Your task to perform on an android device: show emergency info Image 0: 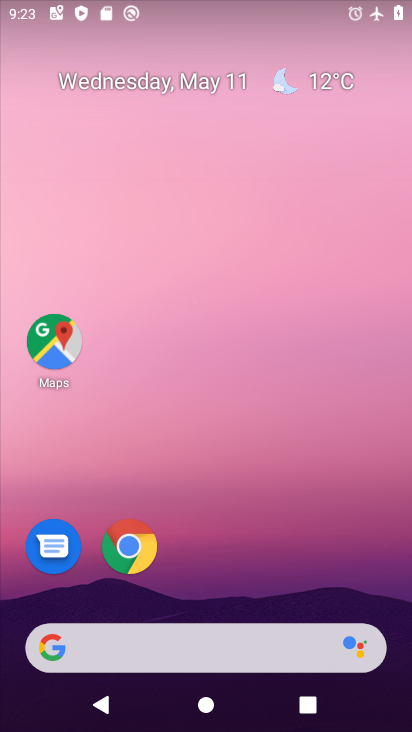
Step 0: drag from (401, 631) to (309, 95)
Your task to perform on an android device: show emergency info Image 1: 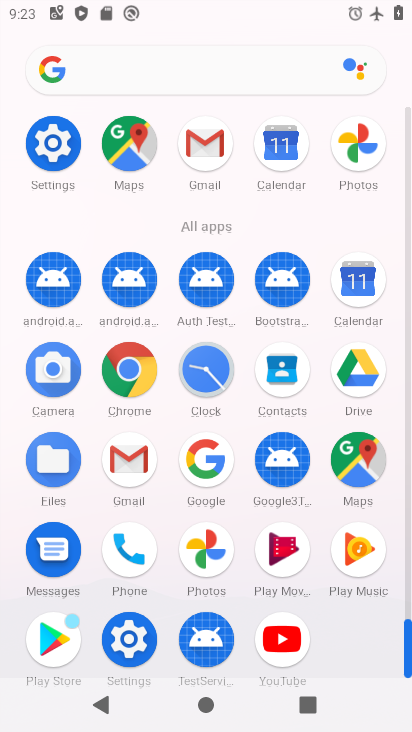
Step 1: click (128, 637)
Your task to perform on an android device: show emergency info Image 2: 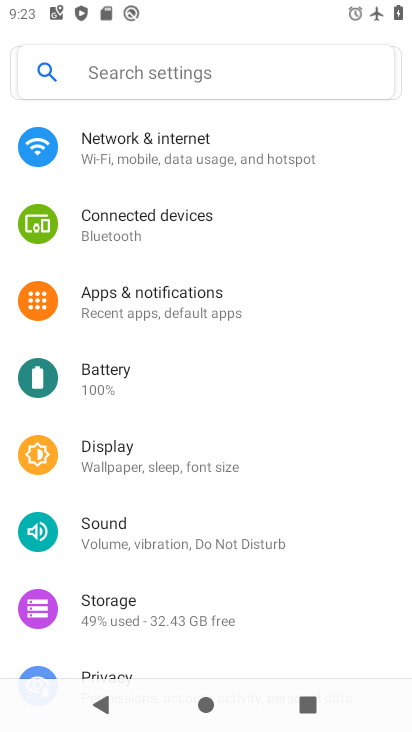
Step 2: drag from (353, 648) to (326, 263)
Your task to perform on an android device: show emergency info Image 3: 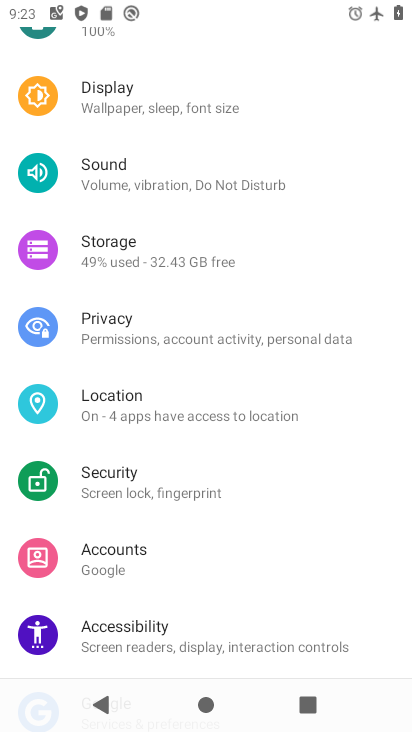
Step 3: drag from (316, 588) to (378, 224)
Your task to perform on an android device: show emergency info Image 4: 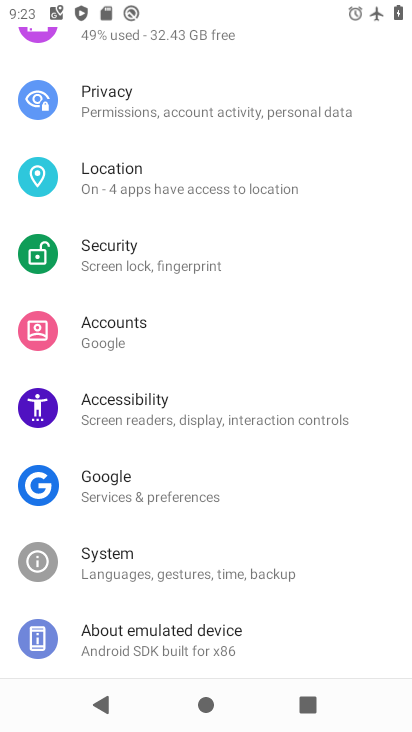
Step 4: click (104, 637)
Your task to perform on an android device: show emergency info Image 5: 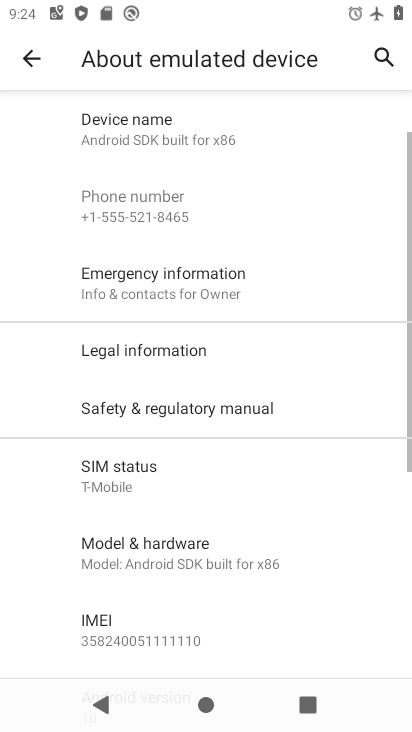
Step 5: click (109, 276)
Your task to perform on an android device: show emergency info Image 6: 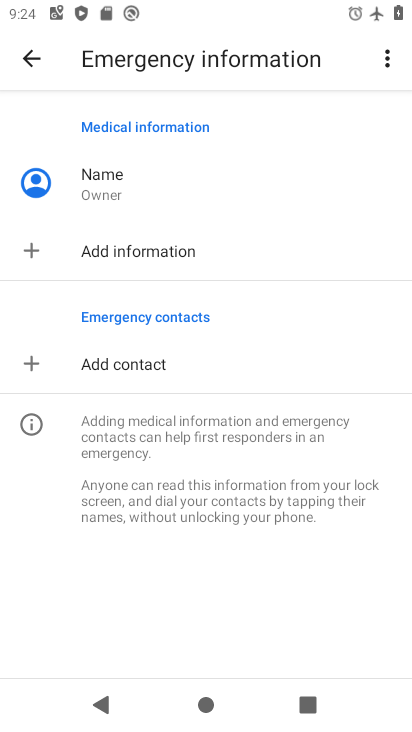
Step 6: task complete